Your task to perform on an android device: Open Google Chrome and click the shortcut for Amazon.com Image 0: 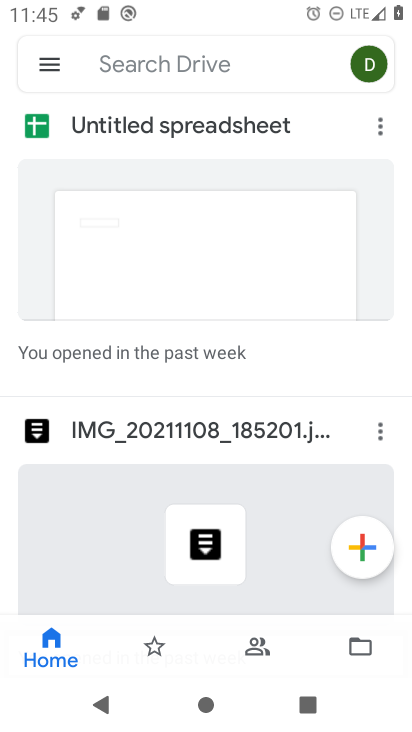
Step 0: press back button
Your task to perform on an android device: Open Google Chrome and click the shortcut for Amazon.com Image 1: 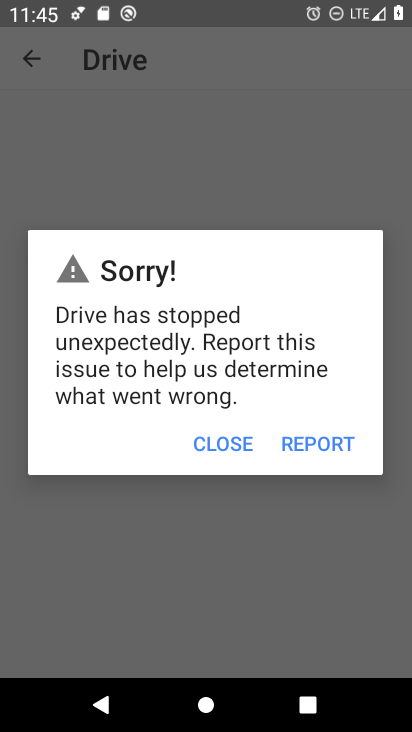
Step 1: press back button
Your task to perform on an android device: Open Google Chrome and click the shortcut for Amazon.com Image 2: 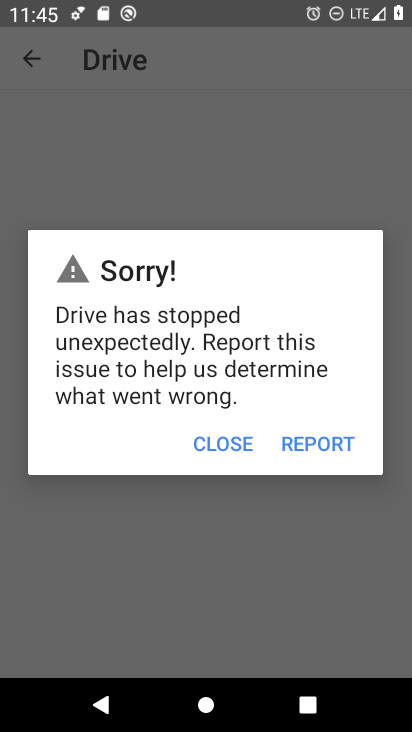
Step 2: press home button
Your task to perform on an android device: Open Google Chrome and click the shortcut for Amazon.com Image 3: 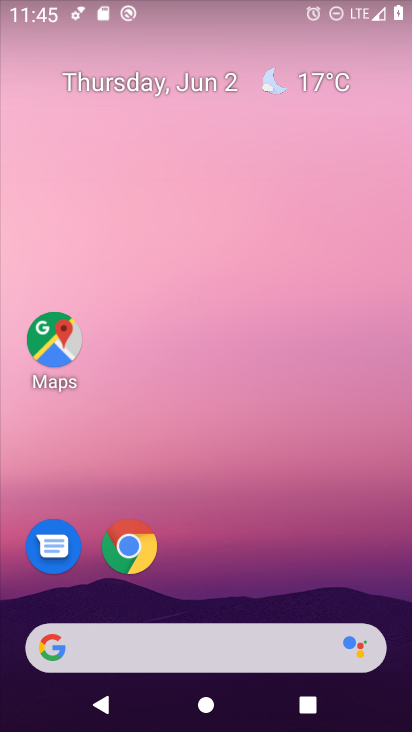
Step 3: drag from (293, 526) to (282, 27)
Your task to perform on an android device: Open Google Chrome and click the shortcut for Amazon.com Image 4: 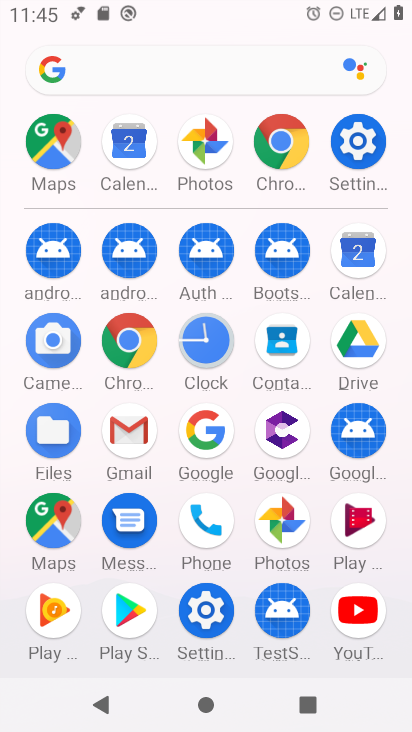
Step 4: click (130, 336)
Your task to perform on an android device: Open Google Chrome and click the shortcut for Amazon.com Image 5: 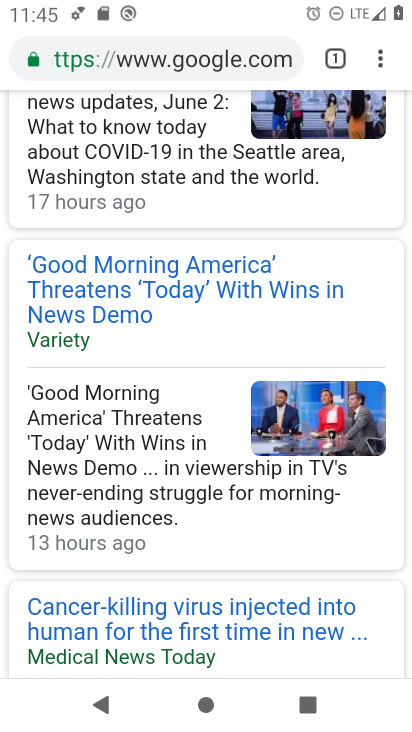
Step 5: click (157, 59)
Your task to perform on an android device: Open Google Chrome and click the shortcut for Amazon.com Image 6: 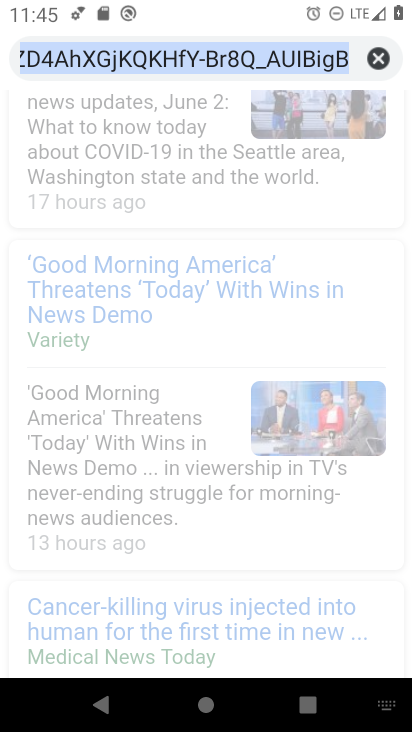
Step 6: click (378, 56)
Your task to perform on an android device: Open Google Chrome and click the shortcut for Amazon.com Image 7: 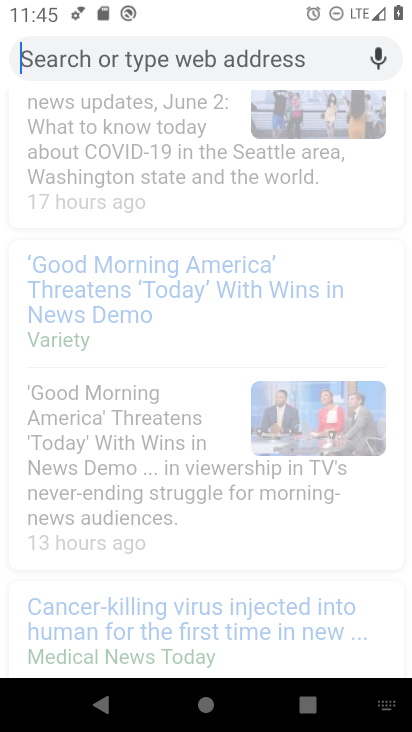
Step 7: type " Amazon.com"
Your task to perform on an android device: Open Google Chrome and click the shortcut for Amazon.com Image 8: 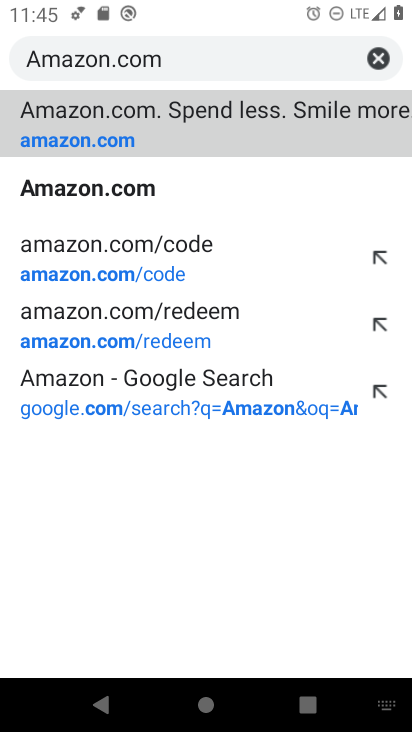
Step 8: type ""
Your task to perform on an android device: Open Google Chrome and click the shortcut for Amazon.com Image 9: 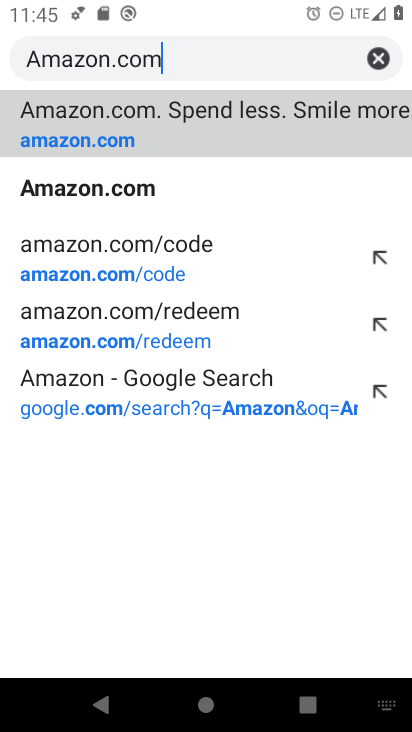
Step 9: click (106, 134)
Your task to perform on an android device: Open Google Chrome and click the shortcut for Amazon.com Image 10: 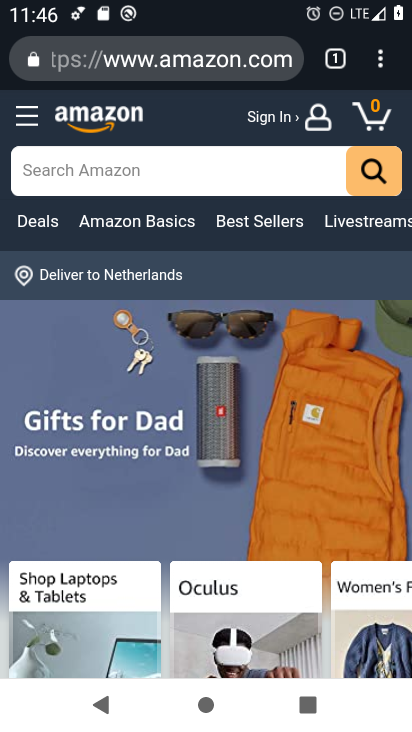
Step 10: drag from (381, 62) to (262, 538)
Your task to perform on an android device: Open Google Chrome and click the shortcut for Amazon.com Image 11: 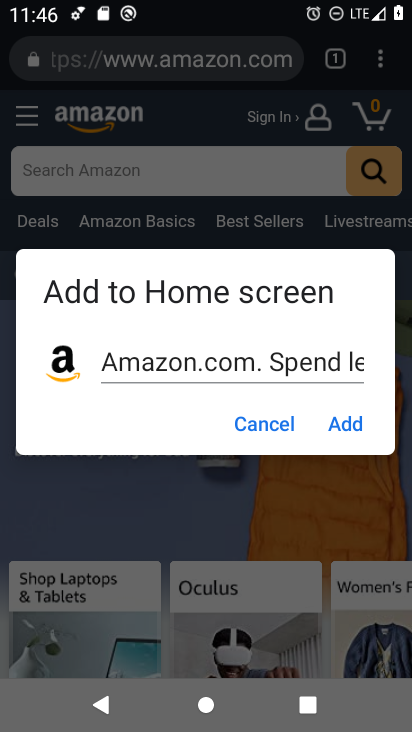
Step 11: click (353, 417)
Your task to perform on an android device: Open Google Chrome and click the shortcut for Amazon.com Image 12: 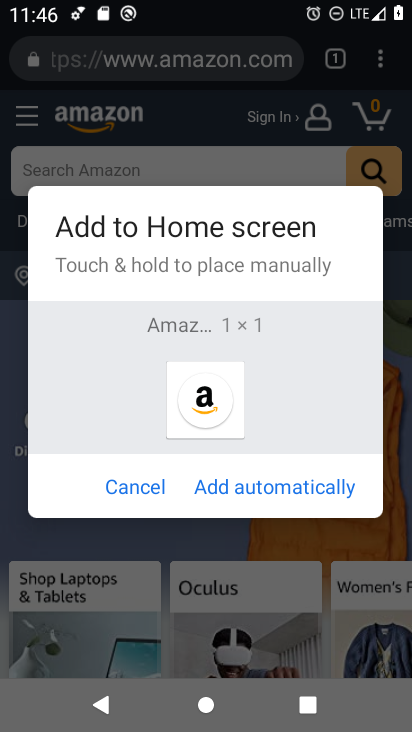
Step 12: click (263, 489)
Your task to perform on an android device: Open Google Chrome and click the shortcut for Amazon.com Image 13: 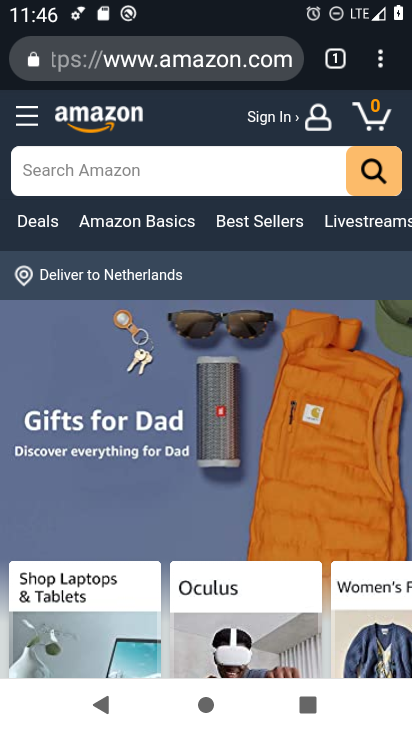
Step 13: task complete